Your task to perform on an android device: What's the weather going to be this weekend? Image 0: 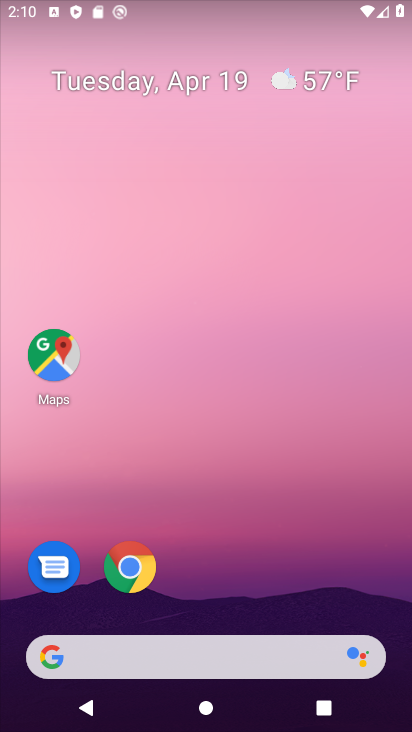
Step 0: drag from (395, 614) to (316, 134)
Your task to perform on an android device: What's the weather going to be this weekend? Image 1: 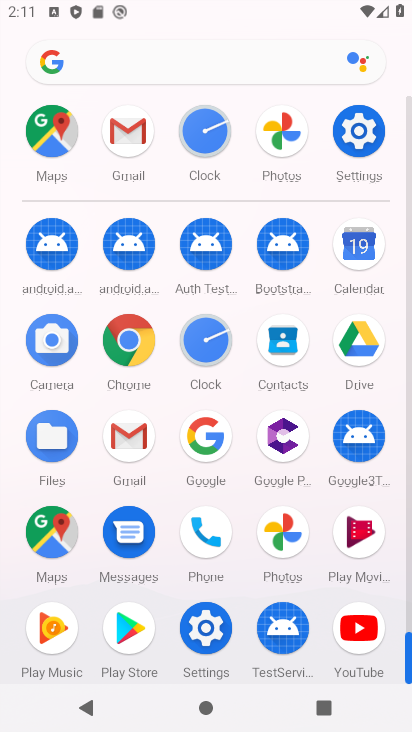
Step 1: click (357, 243)
Your task to perform on an android device: What's the weather going to be this weekend? Image 2: 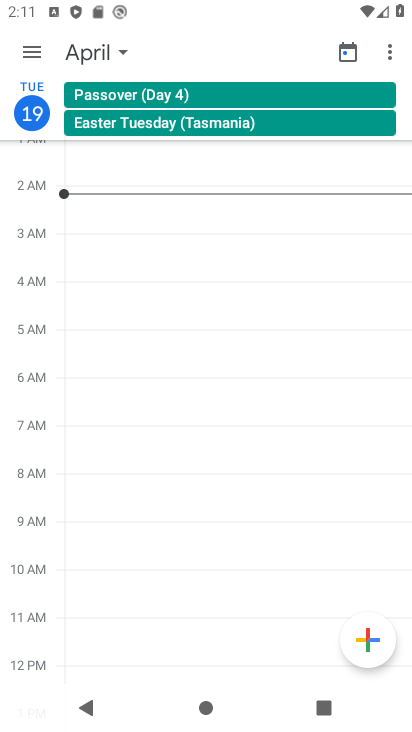
Step 2: click (30, 50)
Your task to perform on an android device: What's the weather going to be this weekend? Image 3: 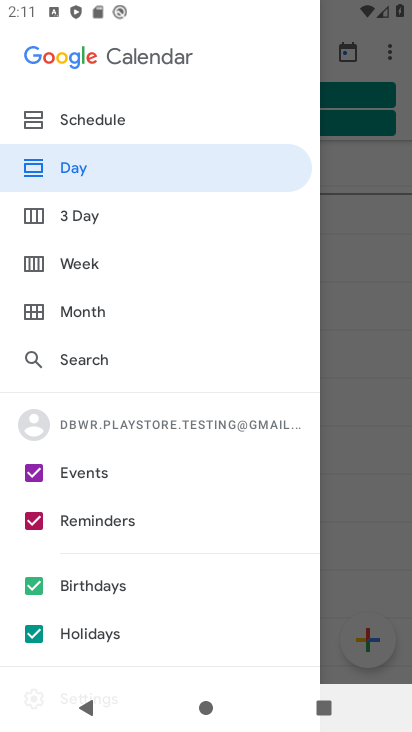
Step 3: click (82, 268)
Your task to perform on an android device: What's the weather going to be this weekend? Image 4: 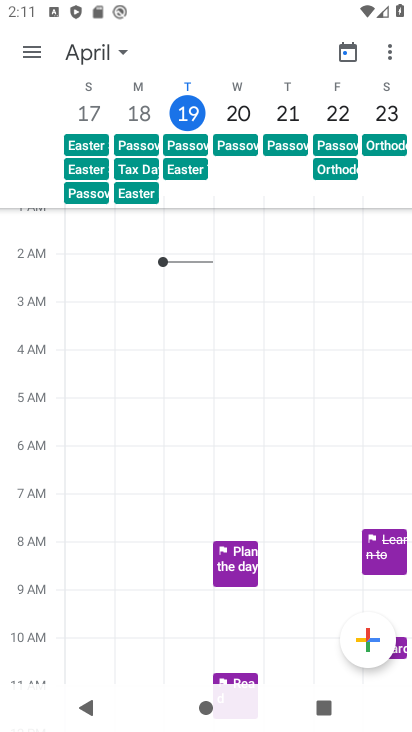
Step 4: task complete